Your task to perform on an android device: Turn on the flashlight Image 0: 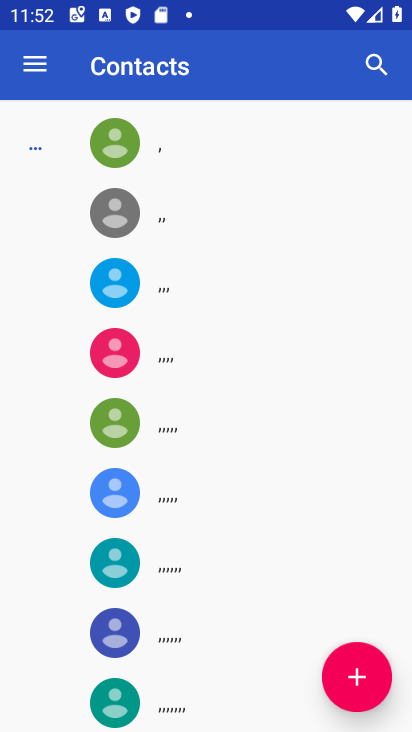
Step 0: press home button
Your task to perform on an android device: Turn on the flashlight Image 1: 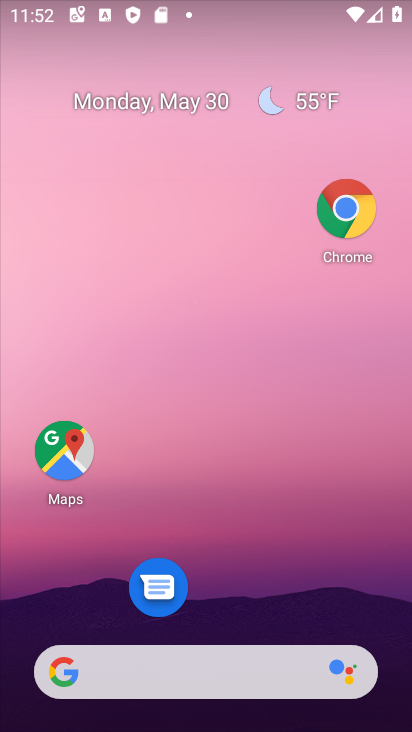
Step 1: drag from (217, 623) to (276, 222)
Your task to perform on an android device: Turn on the flashlight Image 2: 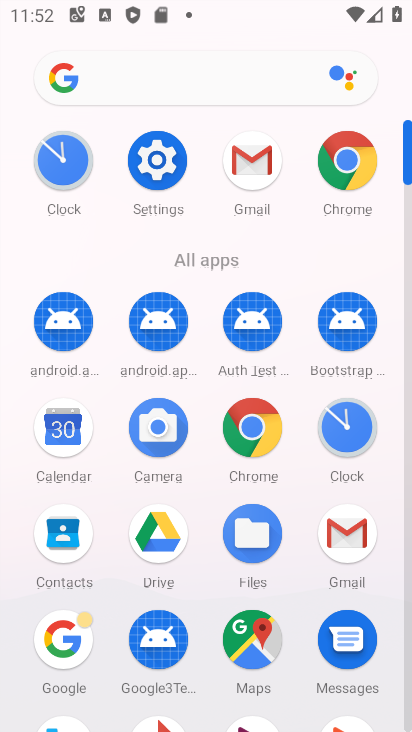
Step 2: click (164, 165)
Your task to perform on an android device: Turn on the flashlight Image 3: 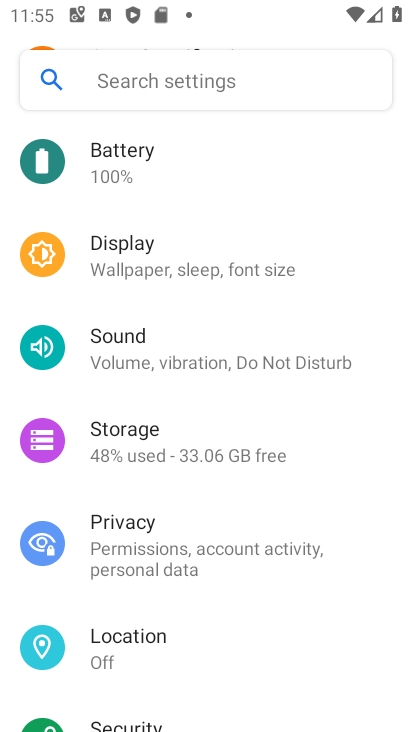
Step 3: task complete